Your task to perform on an android device: Go to settings Image 0: 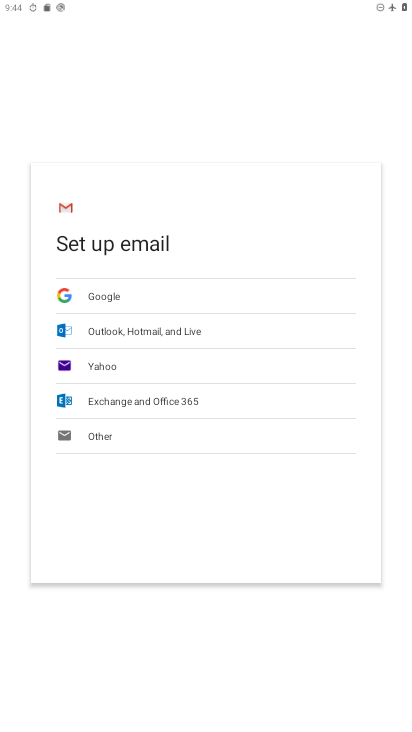
Step 0: press home button
Your task to perform on an android device: Go to settings Image 1: 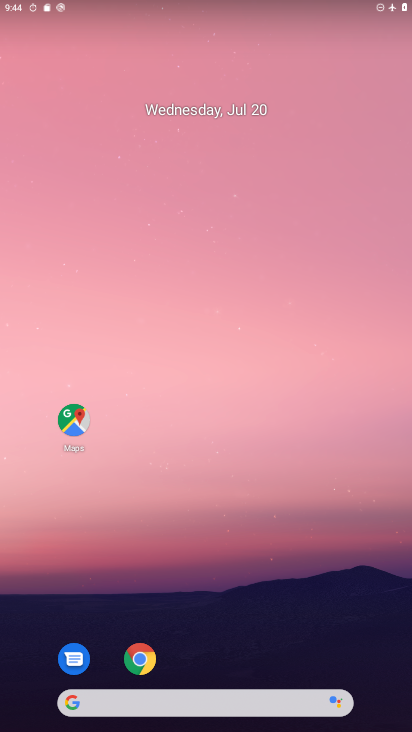
Step 1: drag from (237, 631) to (187, 17)
Your task to perform on an android device: Go to settings Image 2: 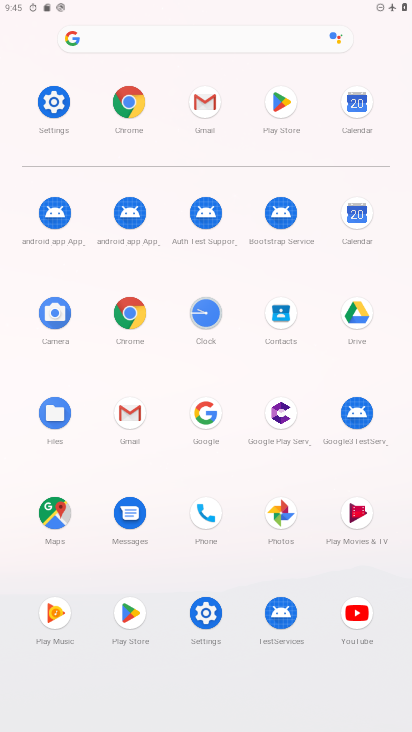
Step 2: click (53, 95)
Your task to perform on an android device: Go to settings Image 3: 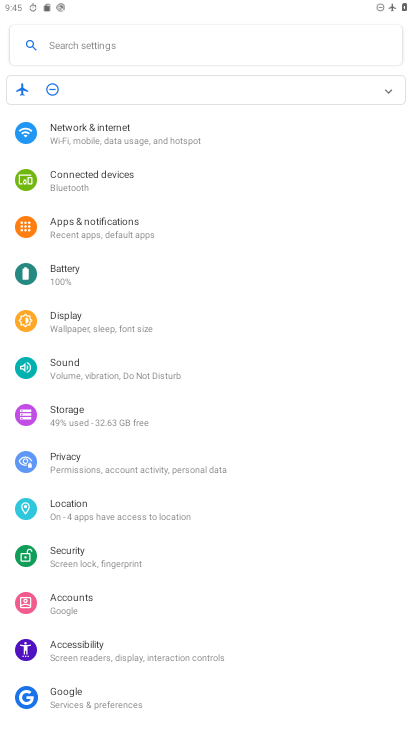
Step 3: task complete